Your task to perform on an android device: create a new album in the google photos Image 0: 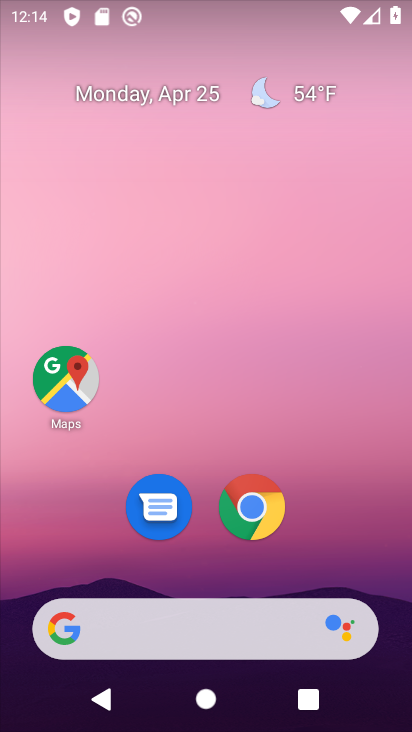
Step 0: drag from (333, 556) to (305, 35)
Your task to perform on an android device: create a new album in the google photos Image 1: 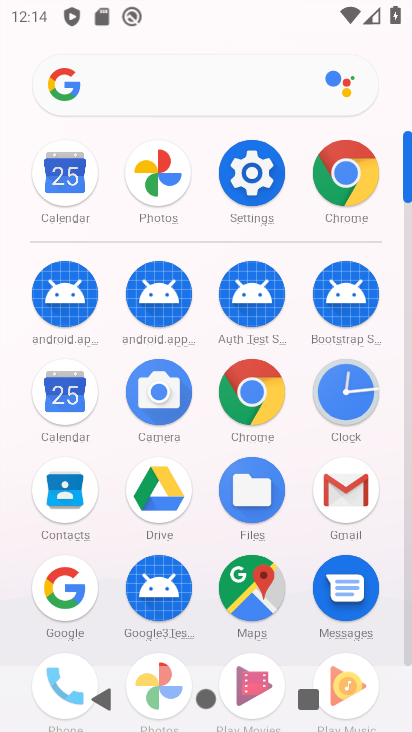
Step 1: drag from (19, 494) to (23, 157)
Your task to perform on an android device: create a new album in the google photos Image 2: 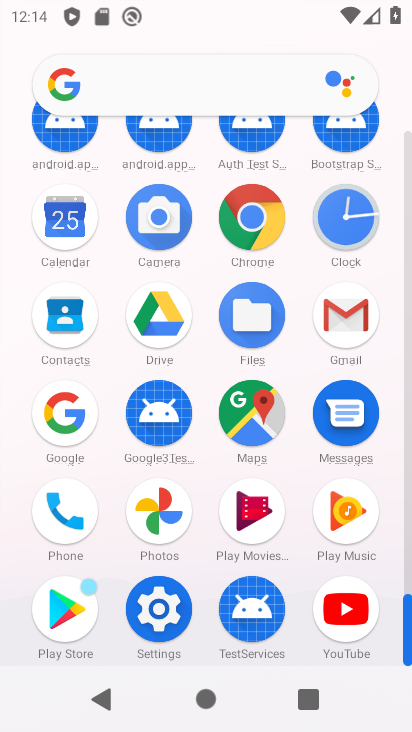
Step 2: click (160, 505)
Your task to perform on an android device: create a new album in the google photos Image 3: 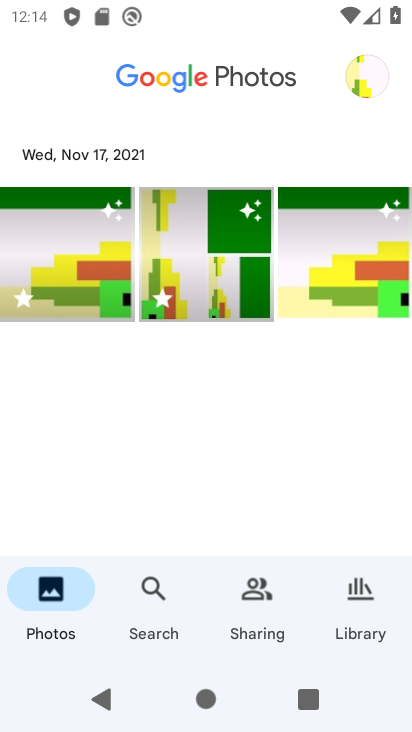
Step 3: click (314, 224)
Your task to perform on an android device: create a new album in the google photos Image 4: 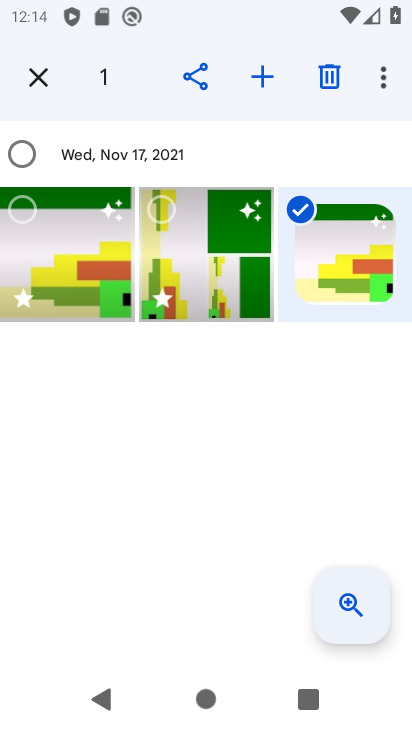
Step 4: click (264, 74)
Your task to perform on an android device: create a new album in the google photos Image 5: 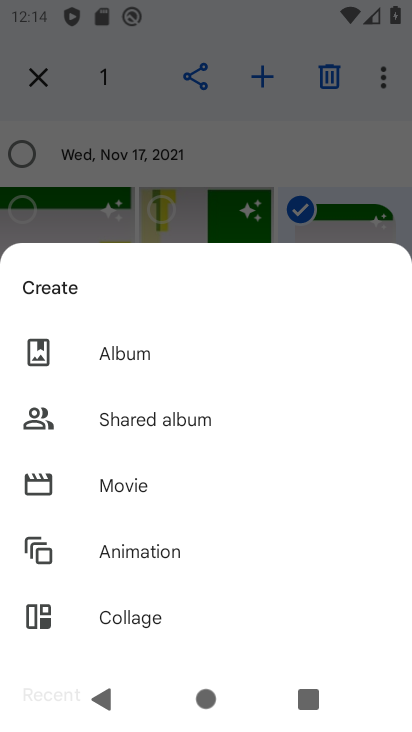
Step 5: click (149, 343)
Your task to perform on an android device: create a new album in the google photos Image 6: 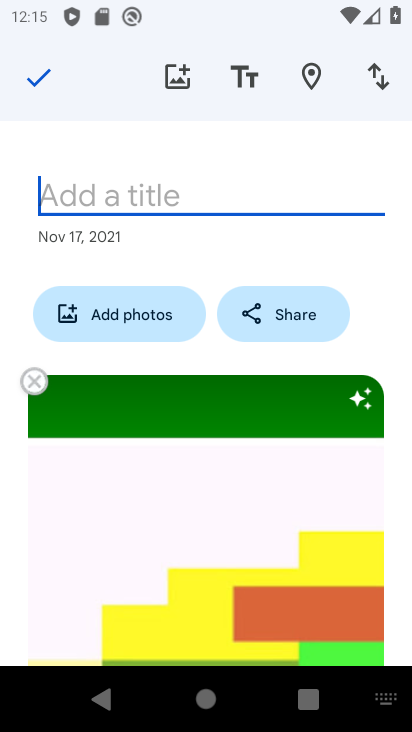
Step 6: type "wrrt"
Your task to perform on an android device: create a new album in the google photos Image 7: 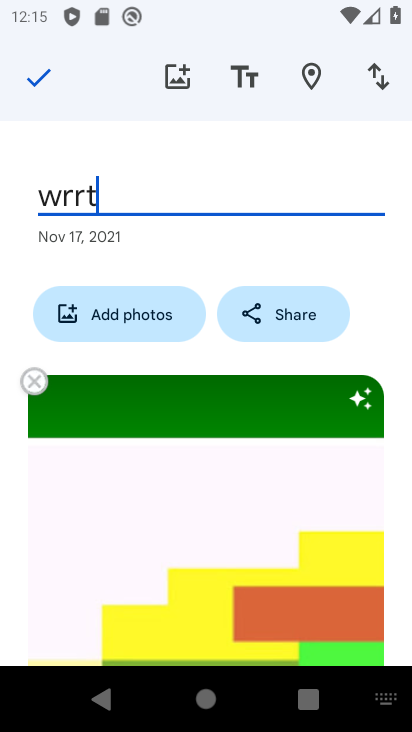
Step 7: type ""
Your task to perform on an android device: create a new album in the google photos Image 8: 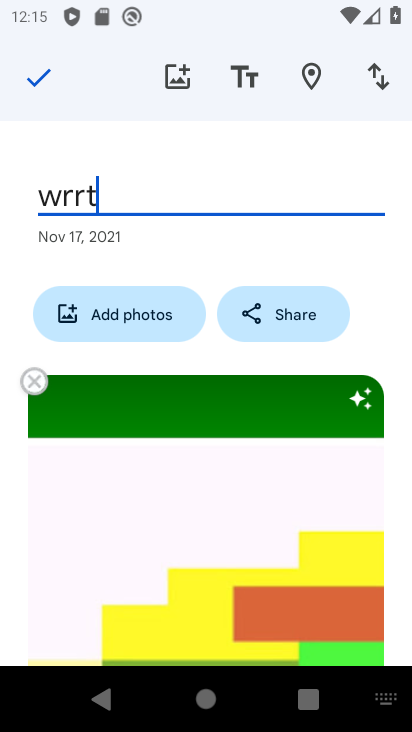
Step 8: click (40, 71)
Your task to perform on an android device: create a new album in the google photos Image 9: 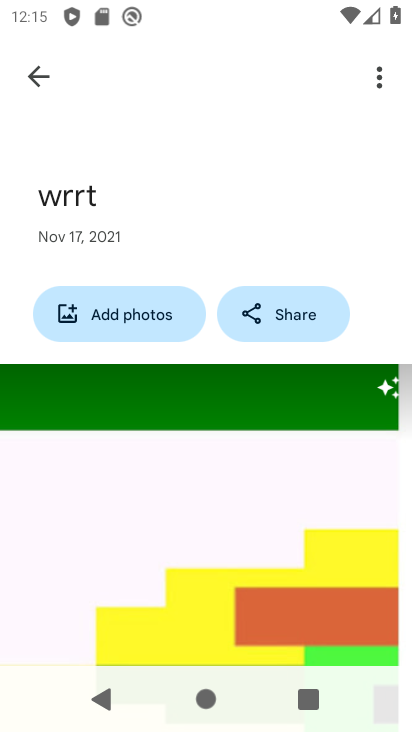
Step 9: task complete